Your task to perform on an android device: toggle javascript in the chrome app Image 0: 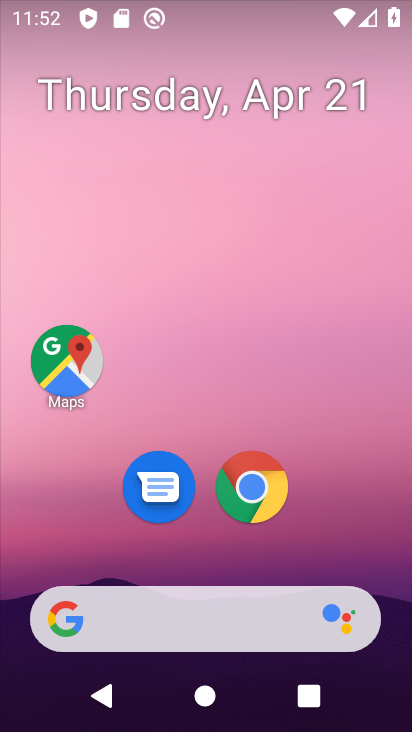
Step 0: click (254, 470)
Your task to perform on an android device: toggle javascript in the chrome app Image 1: 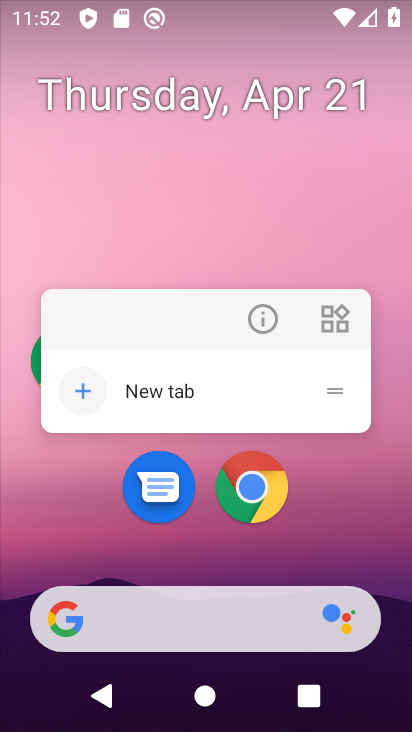
Step 1: click (241, 487)
Your task to perform on an android device: toggle javascript in the chrome app Image 2: 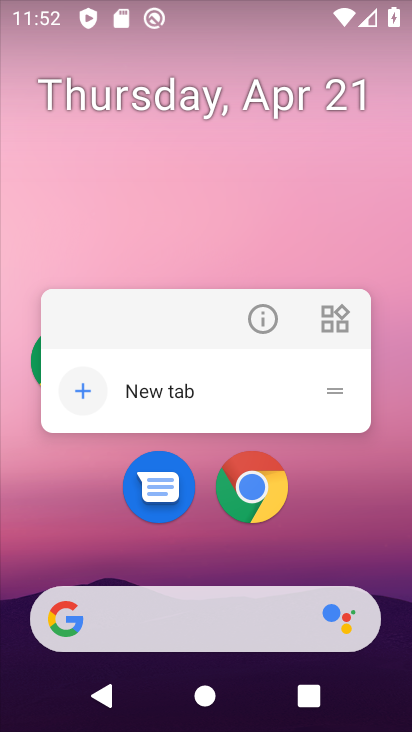
Step 2: click (256, 500)
Your task to perform on an android device: toggle javascript in the chrome app Image 3: 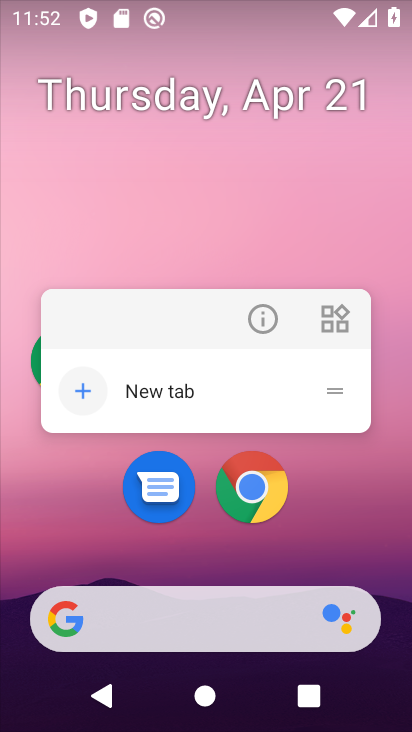
Step 3: click (265, 493)
Your task to perform on an android device: toggle javascript in the chrome app Image 4: 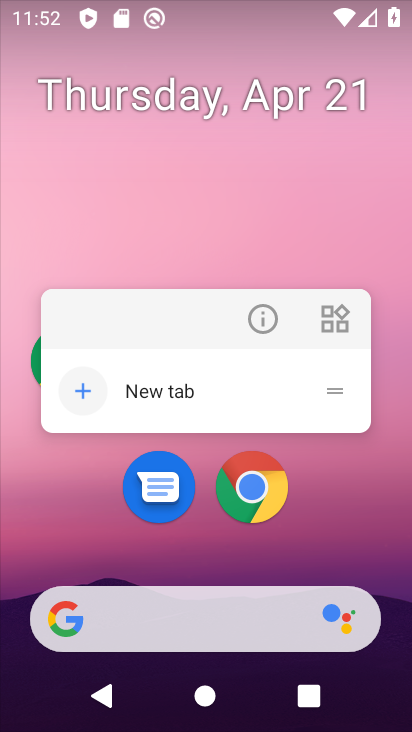
Step 4: click (273, 494)
Your task to perform on an android device: toggle javascript in the chrome app Image 5: 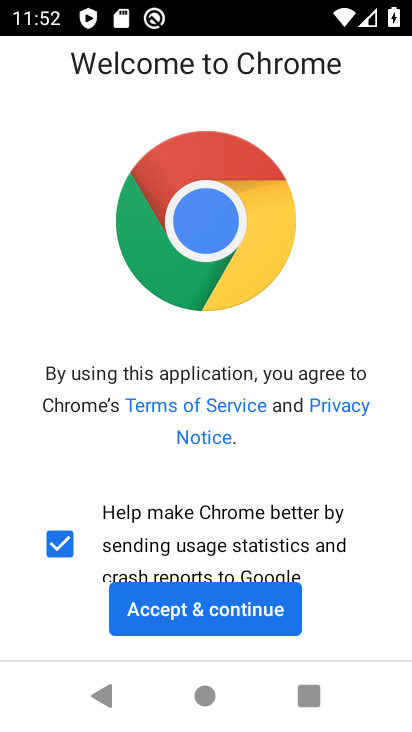
Step 5: click (234, 601)
Your task to perform on an android device: toggle javascript in the chrome app Image 6: 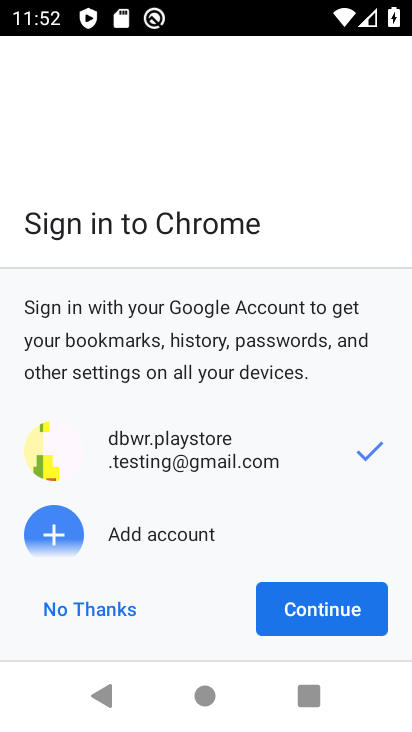
Step 6: click (234, 601)
Your task to perform on an android device: toggle javascript in the chrome app Image 7: 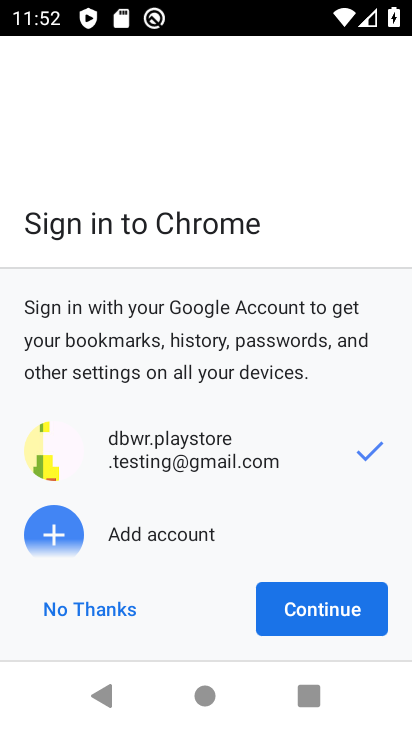
Step 7: click (333, 602)
Your task to perform on an android device: toggle javascript in the chrome app Image 8: 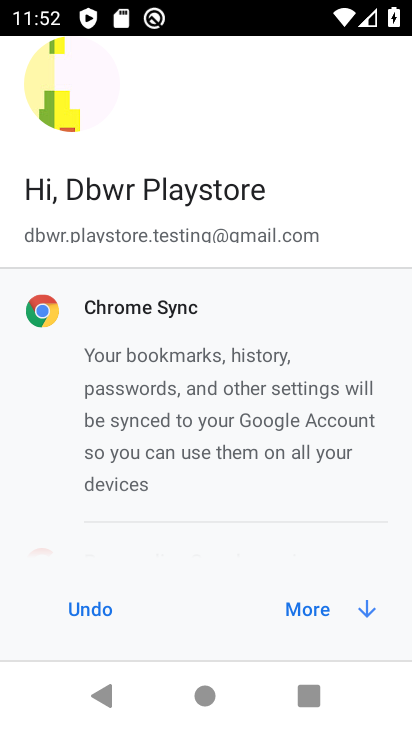
Step 8: click (332, 604)
Your task to perform on an android device: toggle javascript in the chrome app Image 9: 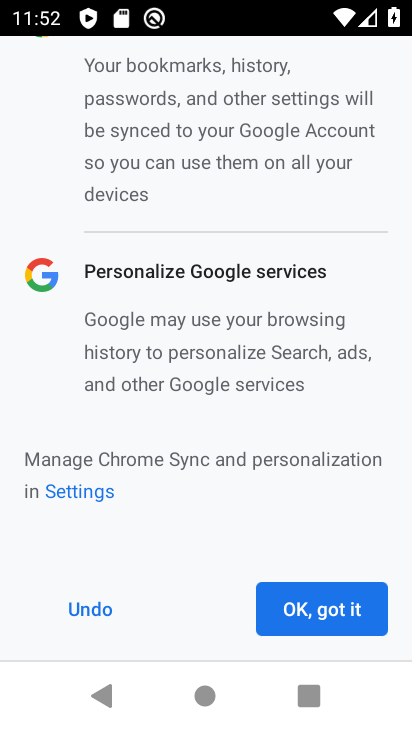
Step 9: click (332, 604)
Your task to perform on an android device: toggle javascript in the chrome app Image 10: 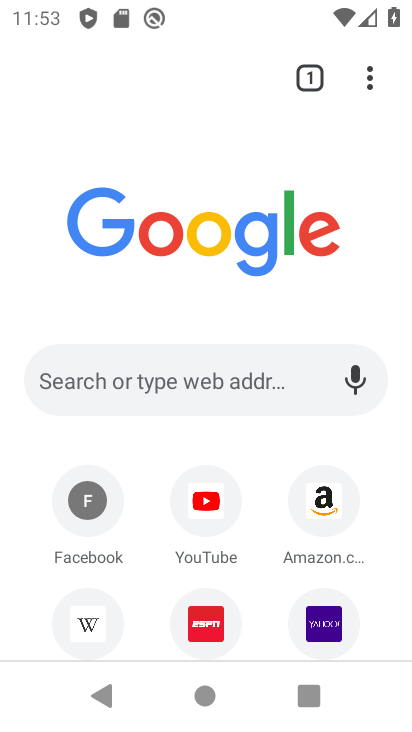
Step 10: click (392, 79)
Your task to perform on an android device: toggle javascript in the chrome app Image 11: 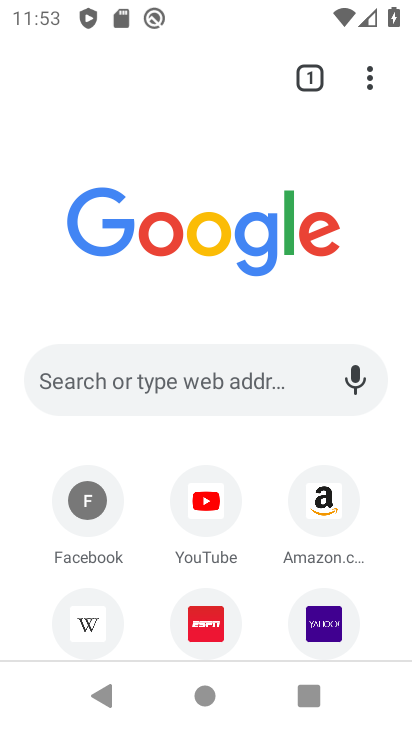
Step 11: drag from (387, 80) to (235, 568)
Your task to perform on an android device: toggle javascript in the chrome app Image 12: 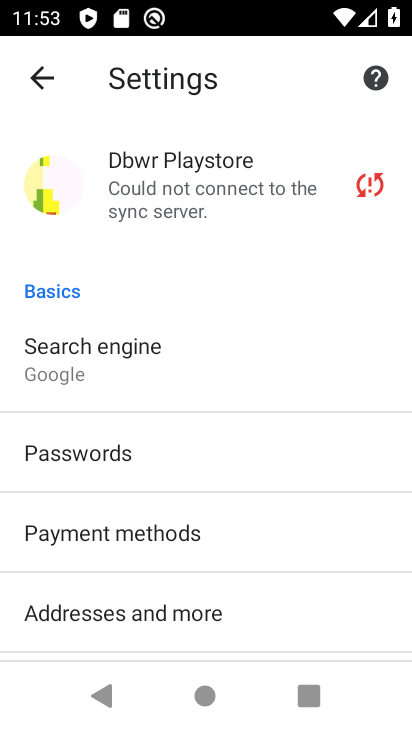
Step 12: drag from (197, 596) to (271, 254)
Your task to perform on an android device: toggle javascript in the chrome app Image 13: 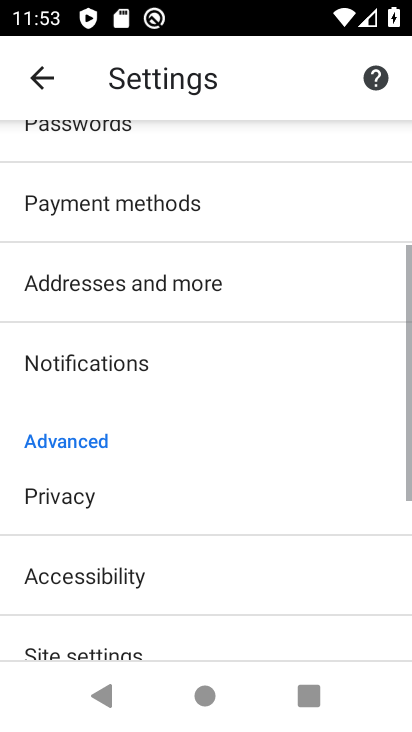
Step 13: drag from (212, 589) to (262, 306)
Your task to perform on an android device: toggle javascript in the chrome app Image 14: 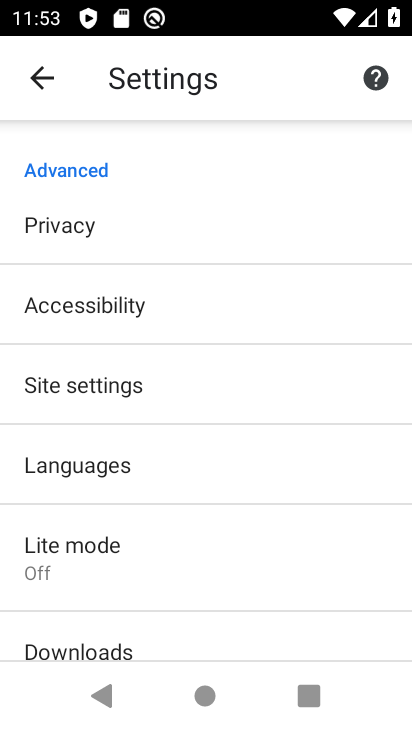
Step 14: click (149, 408)
Your task to perform on an android device: toggle javascript in the chrome app Image 15: 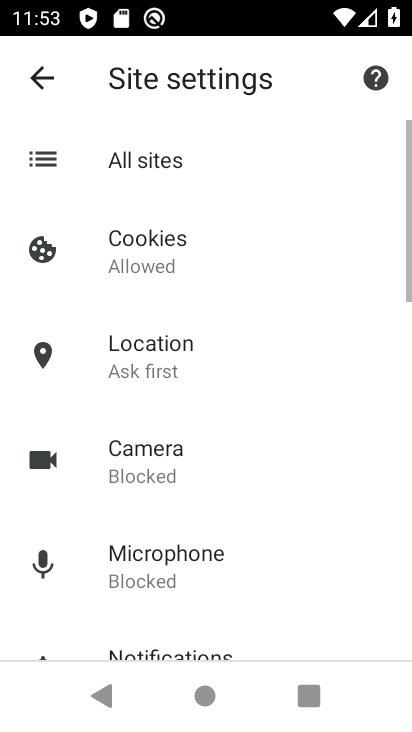
Step 15: drag from (151, 545) to (227, 316)
Your task to perform on an android device: toggle javascript in the chrome app Image 16: 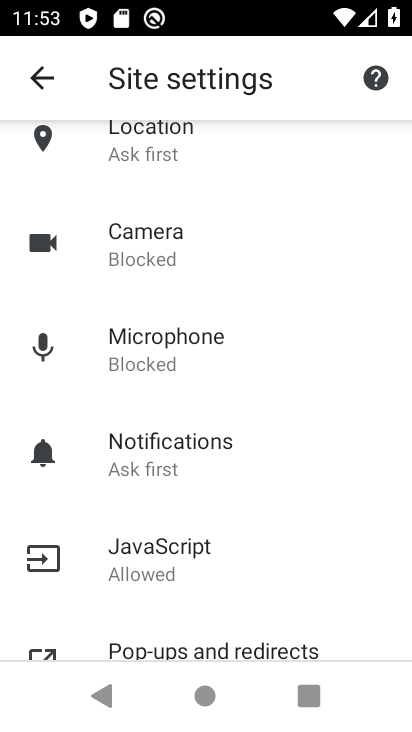
Step 16: click (195, 565)
Your task to perform on an android device: toggle javascript in the chrome app Image 17: 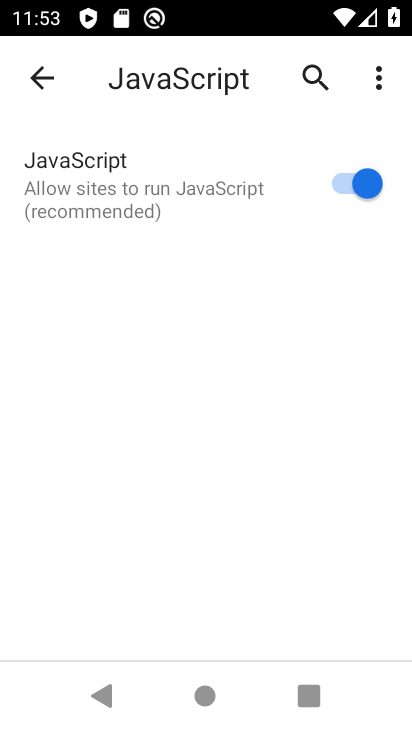
Step 17: click (335, 181)
Your task to perform on an android device: toggle javascript in the chrome app Image 18: 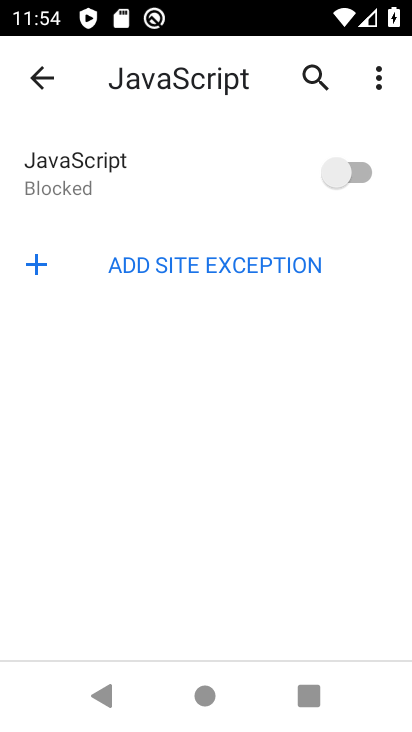
Step 18: task complete